Your task to perform on an android device: When is my next meeting? Image 0: 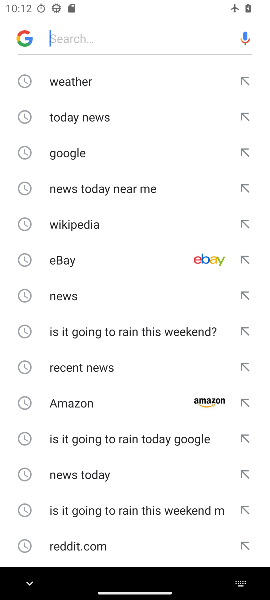
Step 0: press home button
Your task to perform on an android device: When is my next meeting? Image 1: 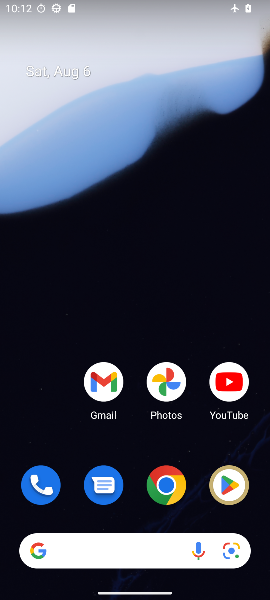
Step 1: drag from (201, 433) to (54, 3)
Your task to perform on an android device: When is my next meeting? Image 2: 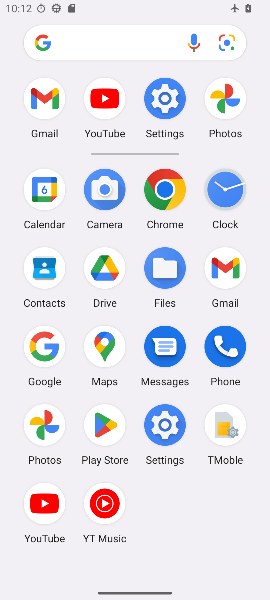
Step 2: click (39, 192)
Your task to perform on an android device: When is my next meeting? Image 3: 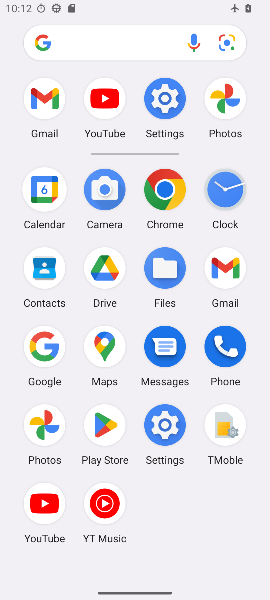
Step 3: click (36, 190)
Your task to perform on an android device: When is my next meeting? Image 4: 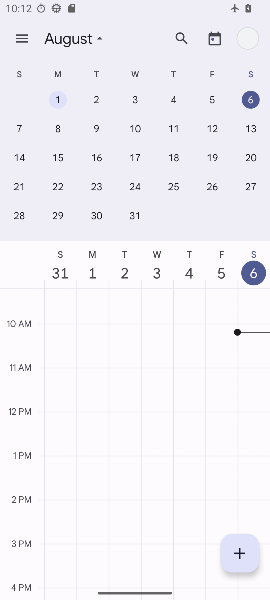
Step 4: drag from (240, 259) to (30, 251)
Your task to perform on an android device: When is my next meeting? Image 5: 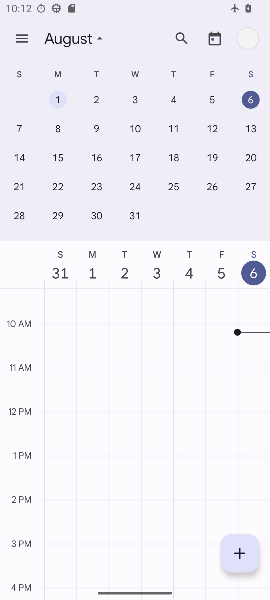
Step 5: click (19, 37)
Your task to perform on an android device: When is my next meeting? Image 6: 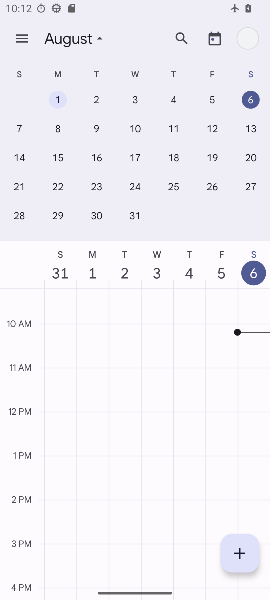
Step 6: click (28, 36)
Your task to perform on an android device: When is my next meeting? Image 7: 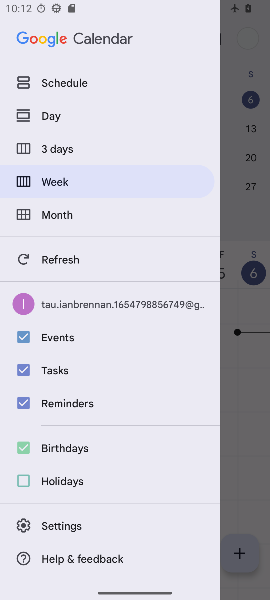
Step 7: click (50, 161)
Your task to perform on an android device: When is my next meeting? Image 8: 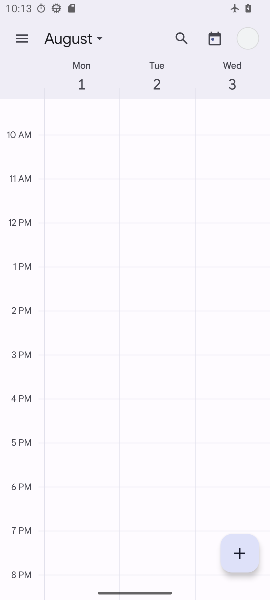
Step 8: task complete